Your task to perform on an android device: snooze an email in the gmail app Image 0: 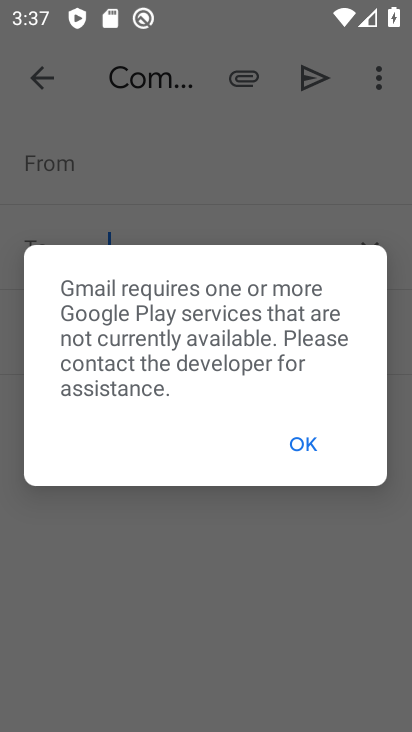
Step 0: click (289, 452)
Your task to perform on an android device: snooze an email in the gmail app Image 1: 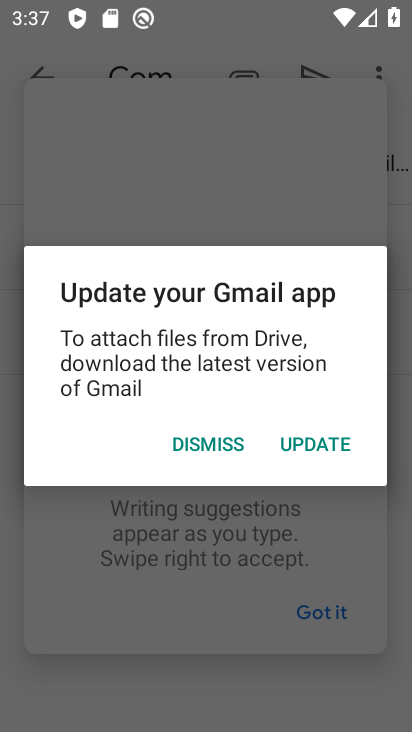
Step 1: press home button
Your task to perform on an android device: snooze an email in the gmail app Image 2: 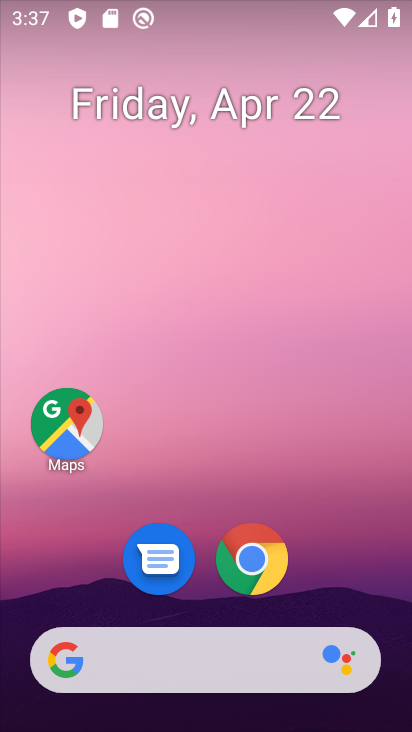
Step 2: drag from (193, 607) to (246, 54)
Your task to perform on an android device: snooze an email in the gmail app Image 3: 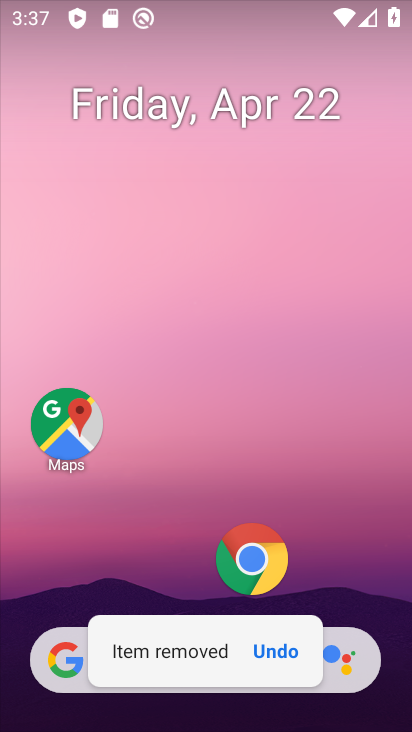
Step 3: drag from (142, 548) to (199, 79)
Your task to perform on an android device: snooze an email in the gmail app Image 4: 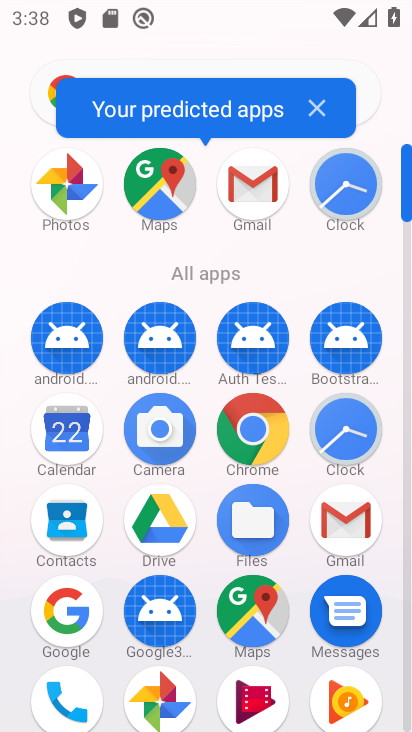
Step 4: click (364, 529)
Your task to perform on an android device: snooze an email in the gmail app Image 5: 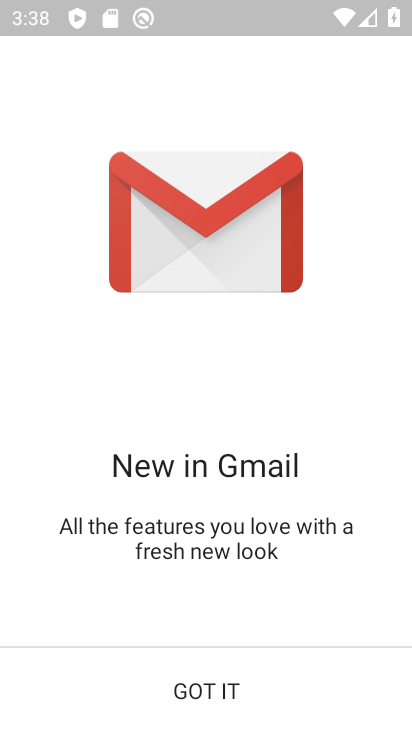
Step 5: click (226, 673)
Your task to perform on an android device: snooze an email in the gmail app Image 6: 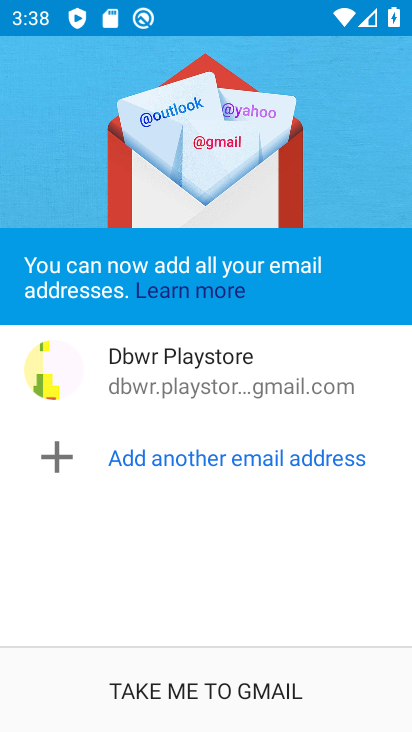
Step 6: click (209, 693)
Your task to perform on an android device: snooze an email in the gmail app Image 7: 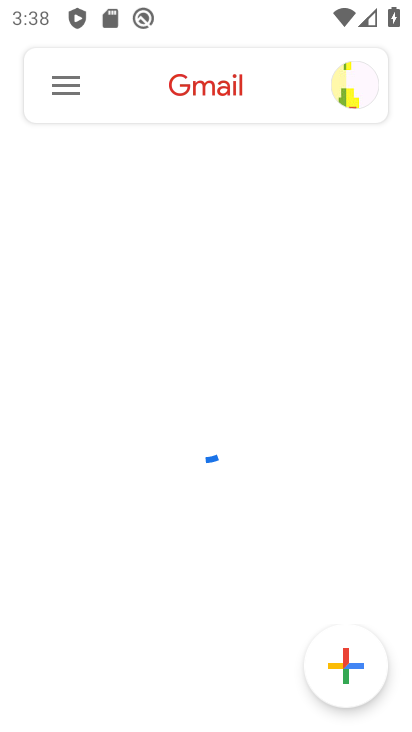
Step 7: click (73, 96)
Your task to perform on an android device: snooze an email in the gmail app Image 8: 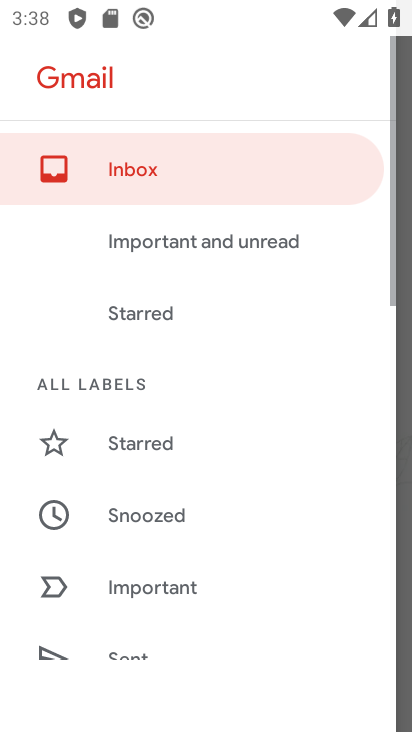
Step 8: drag from (116, 546) to (185, 180)
Your task to perform on an android device: snooze an email in the gmail app Image 9: 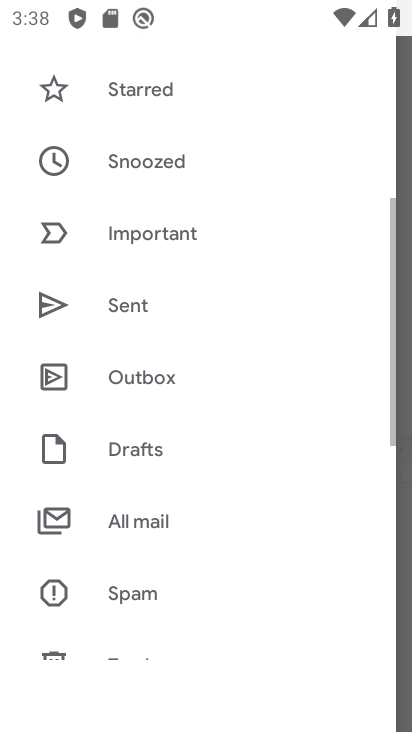
Step 9: click (147, 526)
Your task to perform on an android device: snooze an email in the gmail app Image 10: 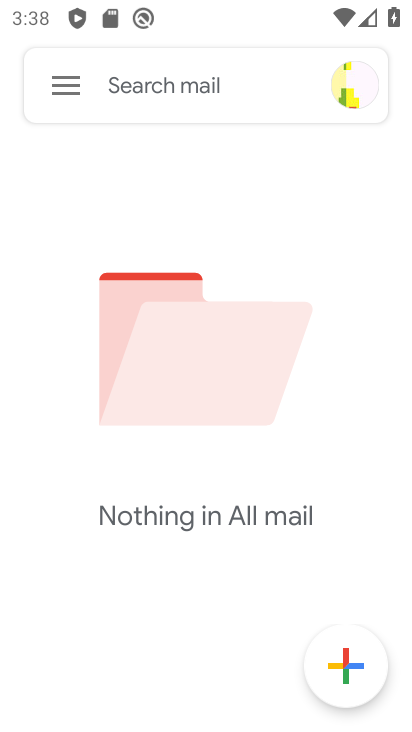
Step 10: task complete